Your task to perform on an android device: toggle pop-ups in chrome Image 0: 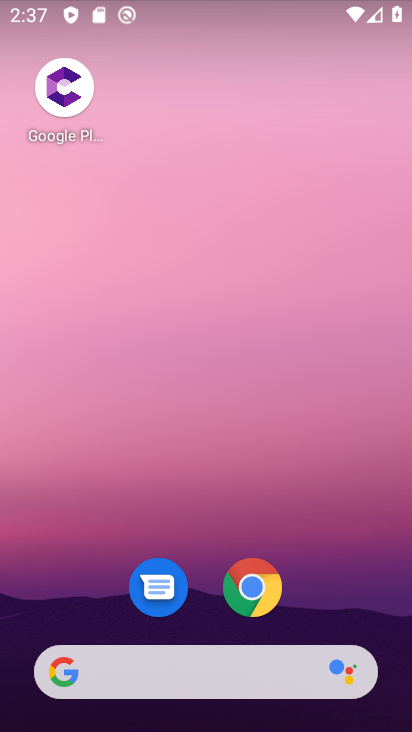
Step 0: click (244, 595)
Your task to perform on an android device: toggle pop-ups in chrome Image 1: 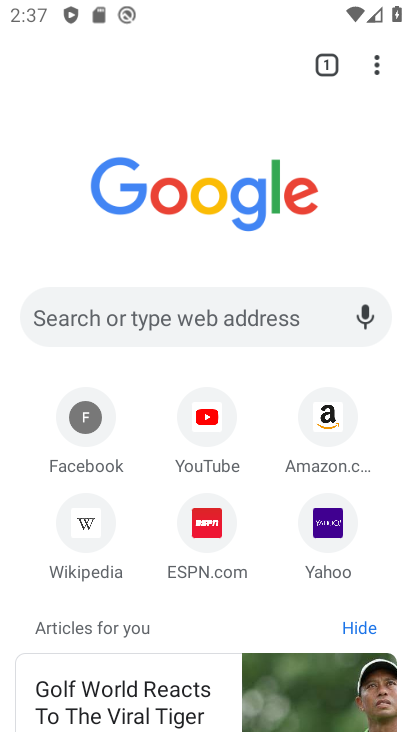
Step 1: click (385, 64)
Your task to perform on an android device: toggle pop-ups in chrome Image 2: 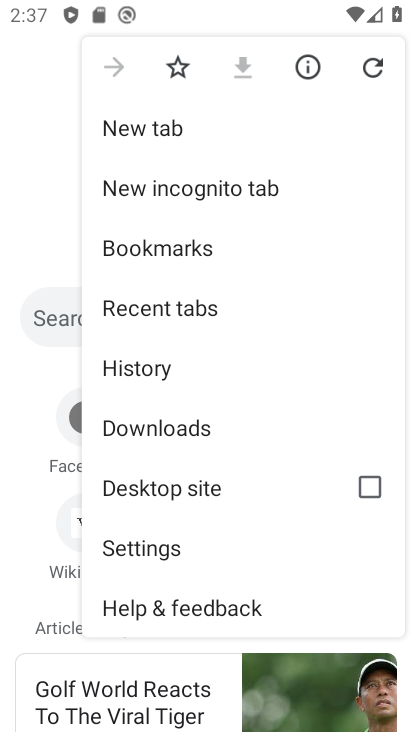
Step 2: click (385, 64)
Your task to perform on an android device: toggle pop-ups in chrome Image 3: 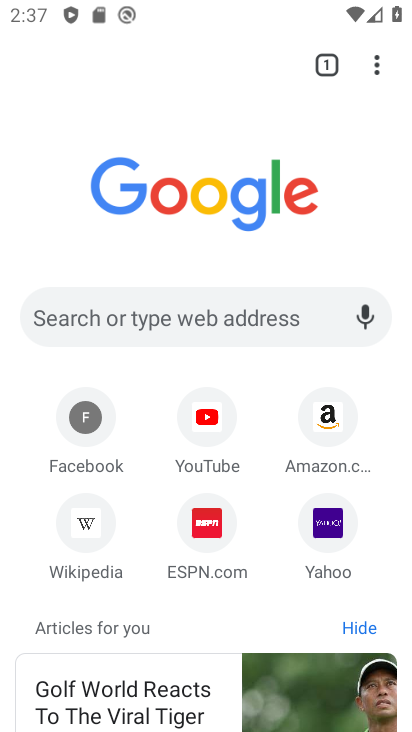
Step 3: click (131, 547)
Your task to perform on an android device: toggle pop-ups in chrome Image 4: 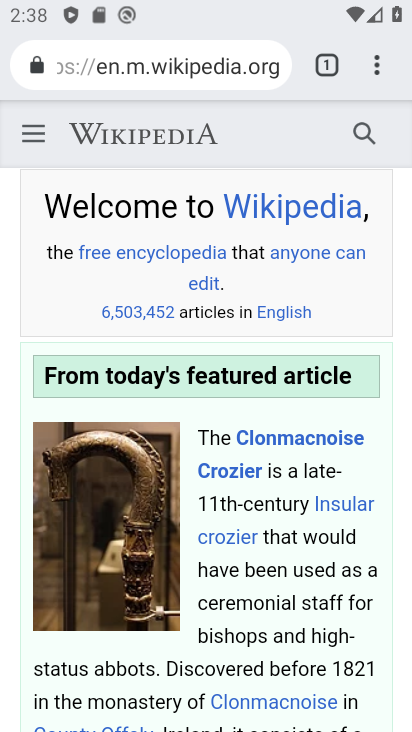
Step 4: click (381, 72)
Your task to perform on an android device: toggle pop-ups in chrome Image 5: 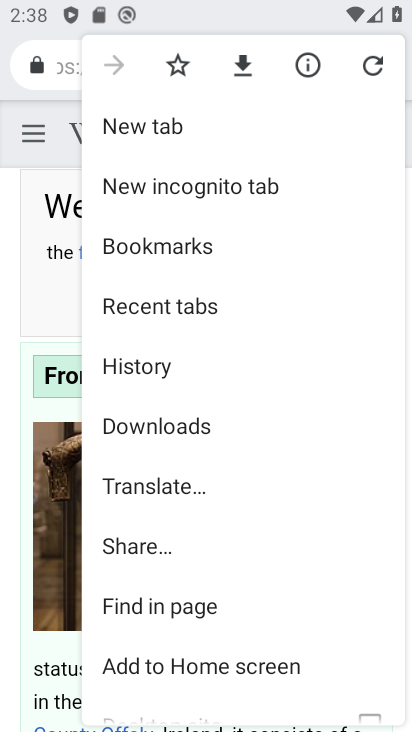
Step 5: drag from (165, 698) to (226, 278)
Your task to perform on an android device: toggle pop-ups in chrome Image 6: 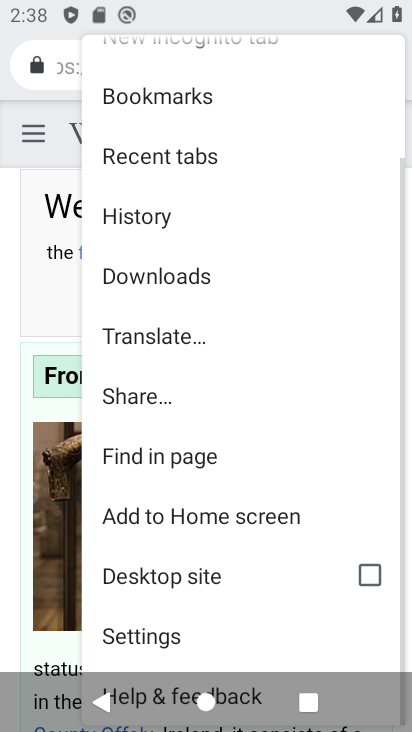
Step 6: click (179, 647)
Your task to perform on an android device: toggle pop-ups in chrome Image 7: 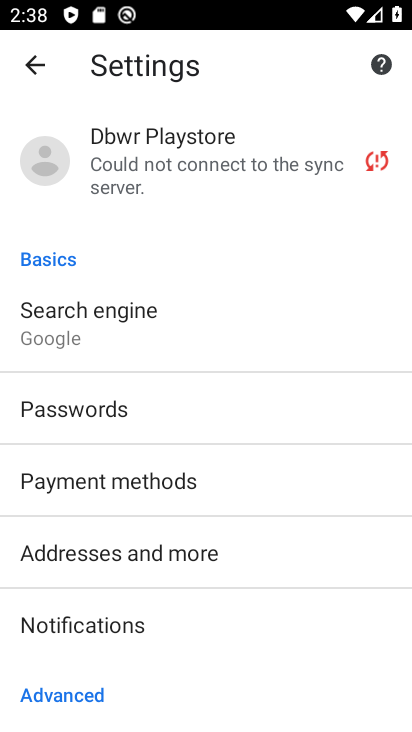
Step 7: drag from (179, 647) to (204, 249)
Your task to perform on an android device: toggle pop-ups in chrome Image 8: 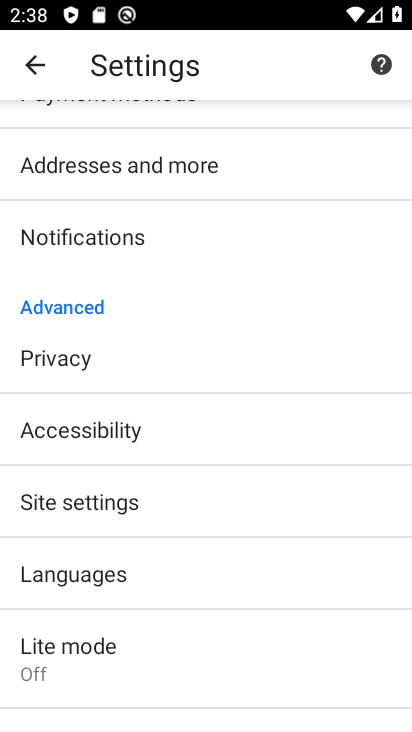
Step 8: drag from (215, 679) to (222, 432)
Your task to perform on an android device: toggle pop-ups in chrome Image 9: 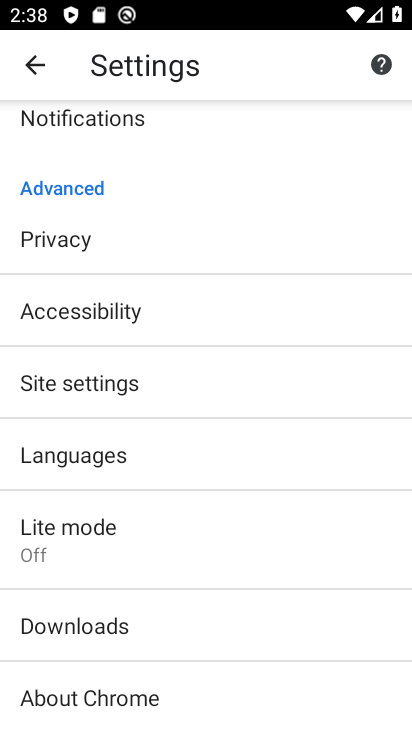
Step 9: click (115, 370)
Your task to perform on an android device: toggle pop-ups in chrome Image 10: 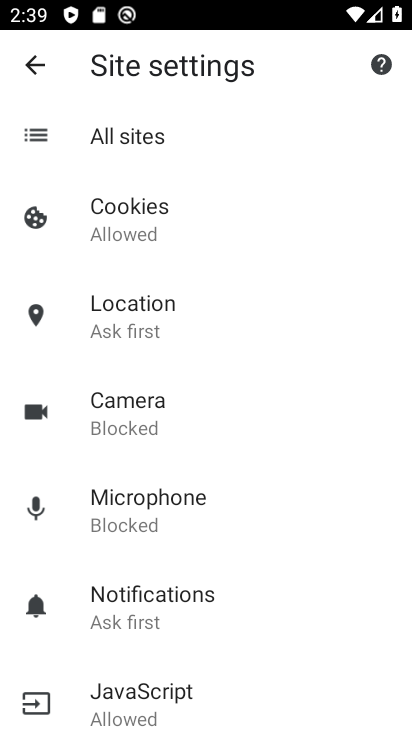
Step 10: drag from (156, 681) to (264, 264)
Your task to perform on an android device: toggle pop-ups in chrome Image 11: 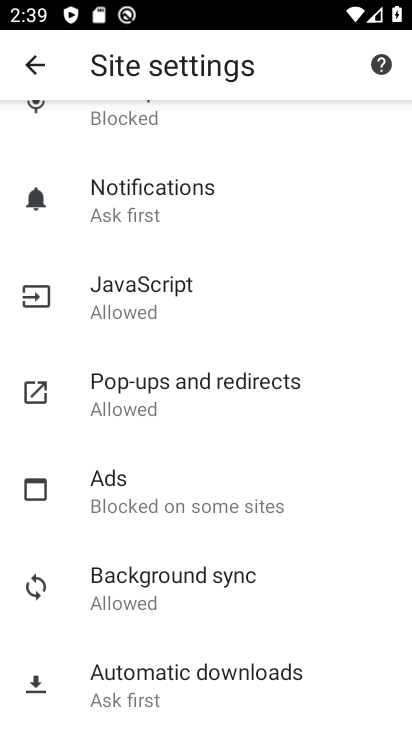
Step 11: click (228, 402)
Your task to perform on an android device: toggle pop-ups in chrome Image 12: 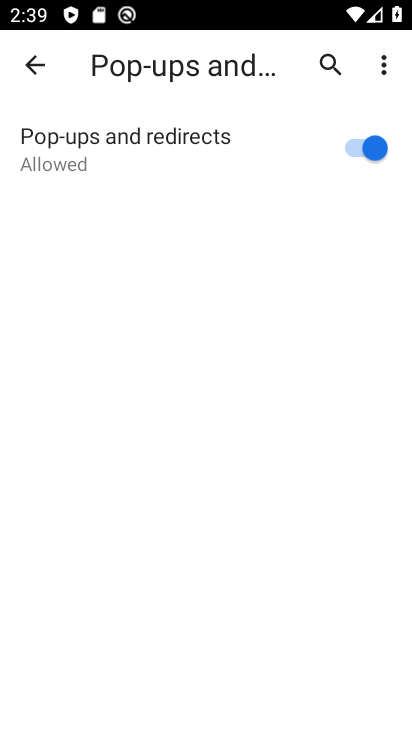
Step 12: click (358, 152)
Your task to perform on an android device: toggle pop-ups in chrome Image 13: 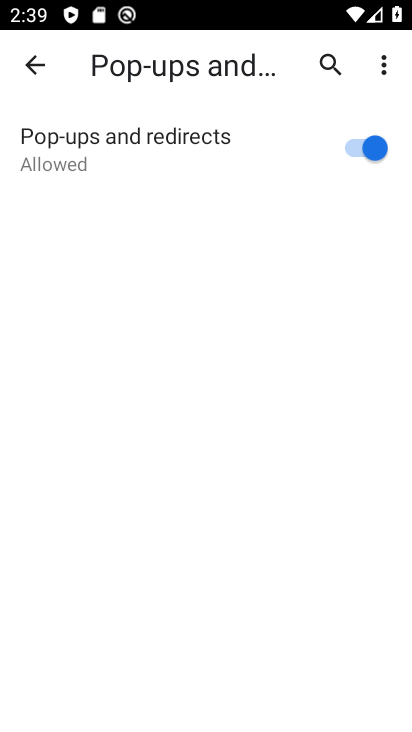
Step 13: click (358, 152)
Your task to perform on an android device: toggle pop-ups in chrome Image 14: 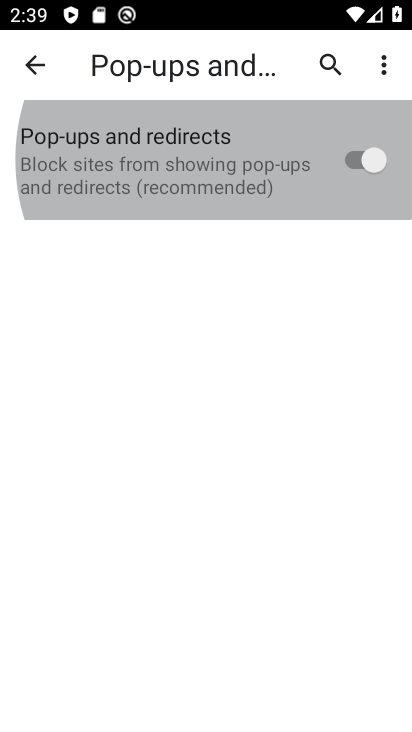
Step 14: click (358, 152)
Your task to perform on an android device: toggle pop-ups in chrome Image 15: 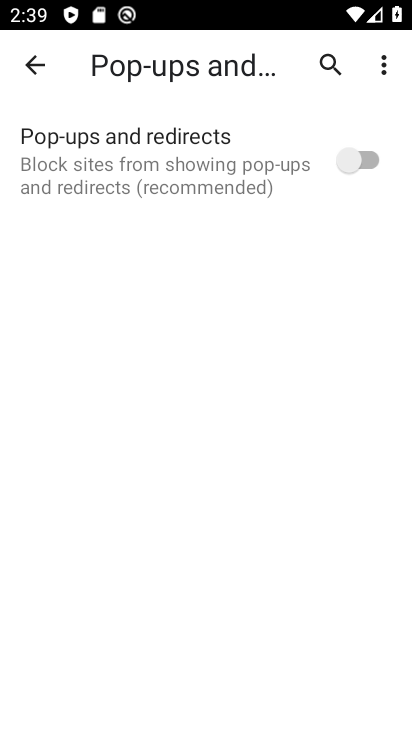
Step 15: click (358, 152)
Your task to perform on an android device: toggle pop-ups in chrome Image 16: 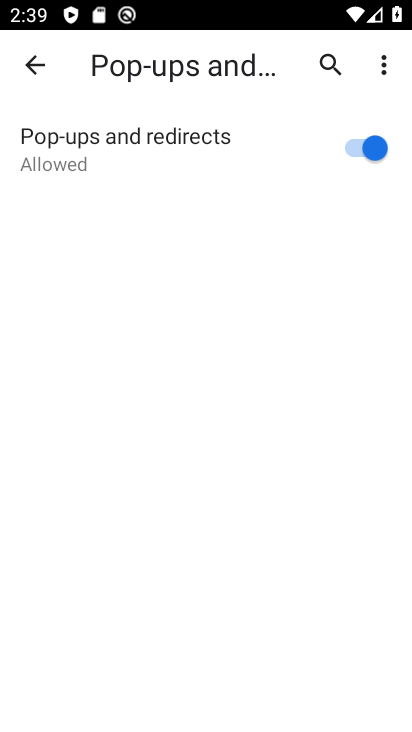
Step 16: task complete